Your task to perform on an android device: toggle pop-ups in chrome Image 0: 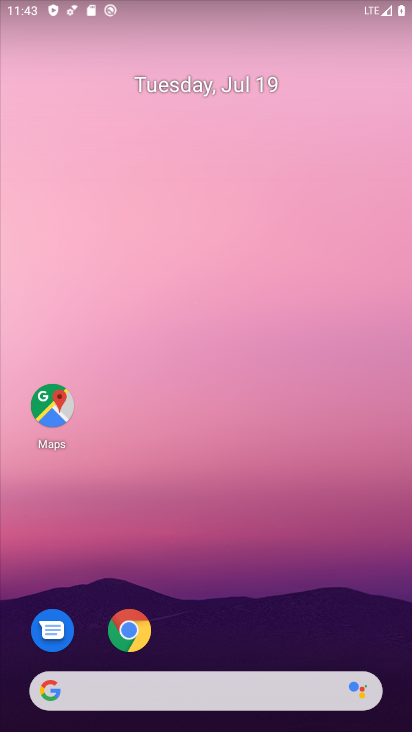
Step 0: drag from (215, 679) to (275, 138)
Your task to perform on an android device: toggle pop-ups in chrome Image 1: 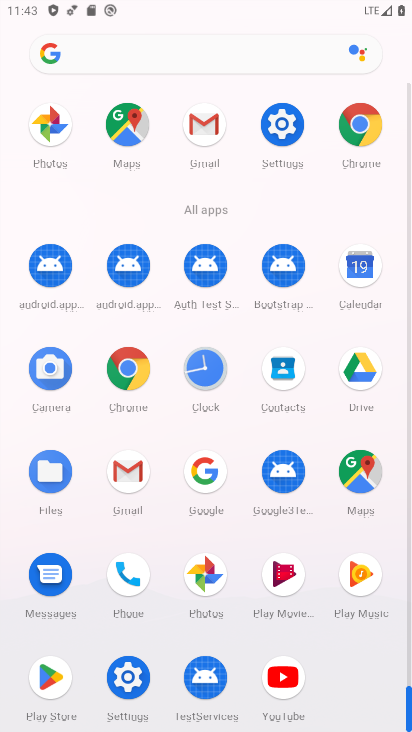
Step 1: click (374, 142)
Your task to perform on an android device: toggle pop-ups in chrome Image 2: 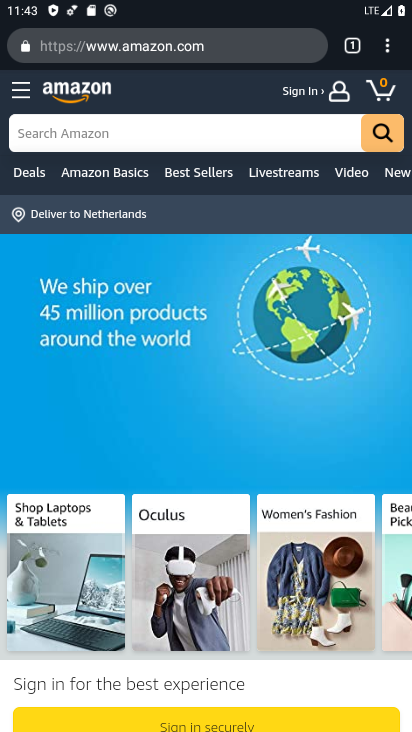
Step 2: click (391, 52)
Your task to perform on an android device: toggle pop-ups in chrome Image 3: 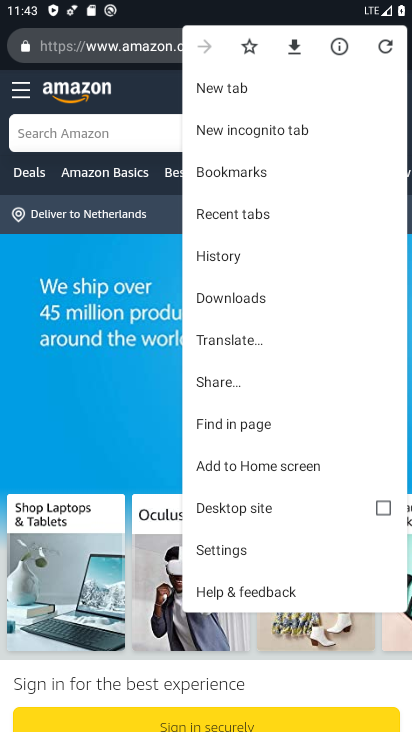
Step 3: click (251, 556)
Your task to perform on an android device: toggle pop-ups in chrome Image 4: 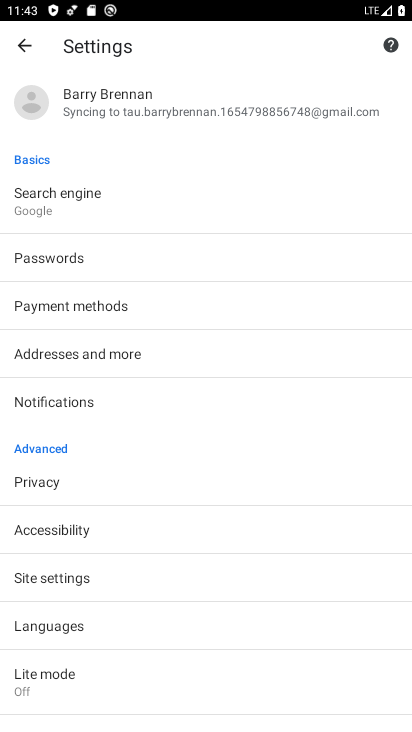
Step 4: click (67, 582)
Your task to perform on an android device: toggle pop-ups in chrome Image 5: 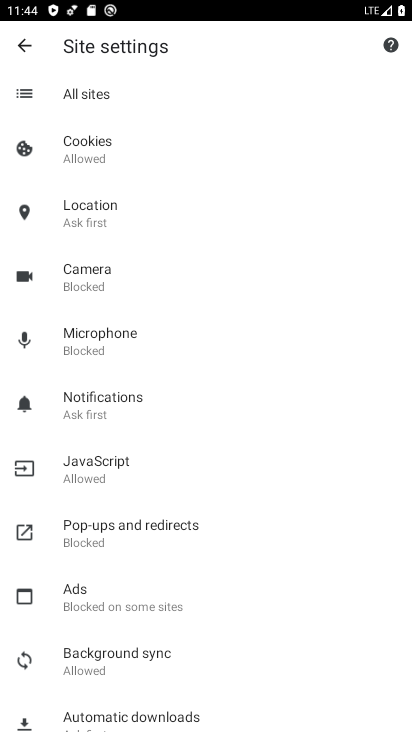
Step 5: click (165, 530)
Your task to perform on an android device: toggle pop-ups in chrome Image 6: 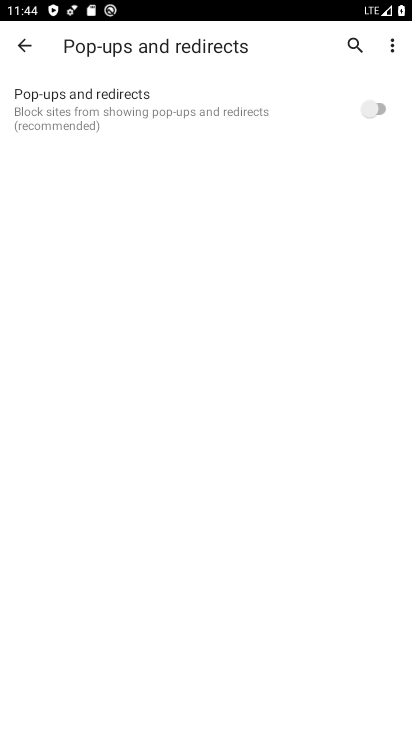
Step 6: click (289, 117)
Your task to perform on an android device: toggle pop-ups in chrome Image 7: 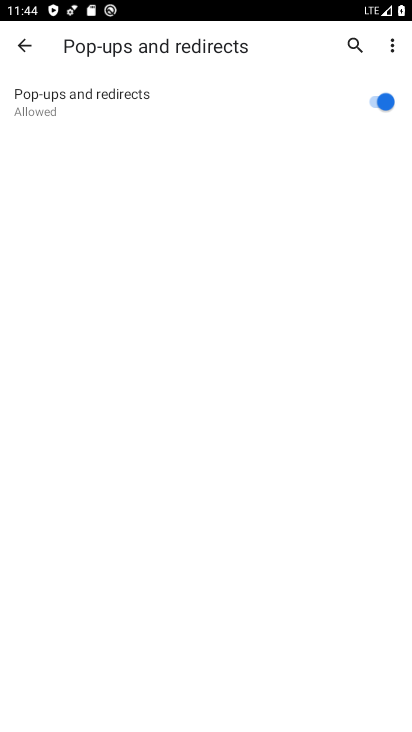
Step 7: task complete